Your task to perform on an android device: Go to calendar. Show me events next week Image 0: 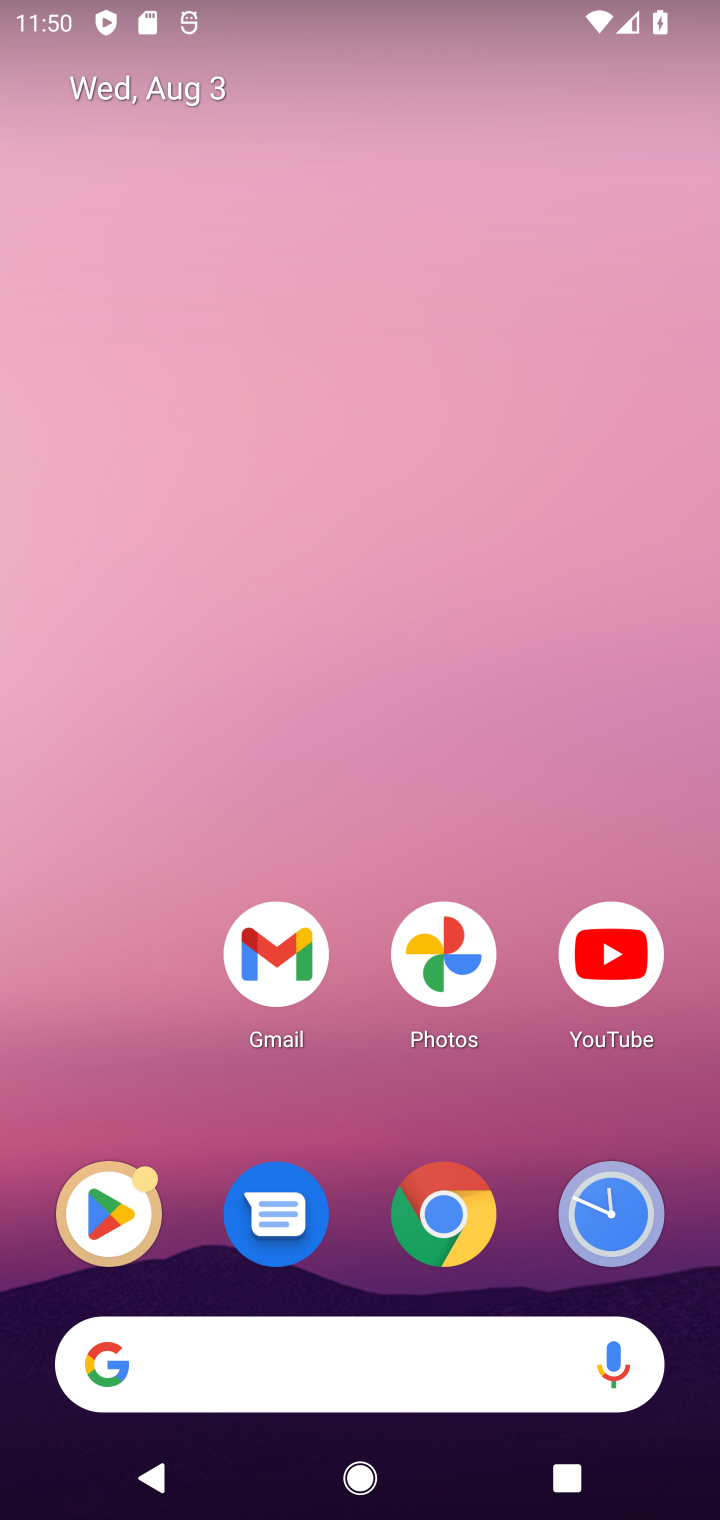
Step 0: drag from (330, 1445) to (463, 286)
Your task to perform on an android device: Go to calendar. Show me events next week Image 1: 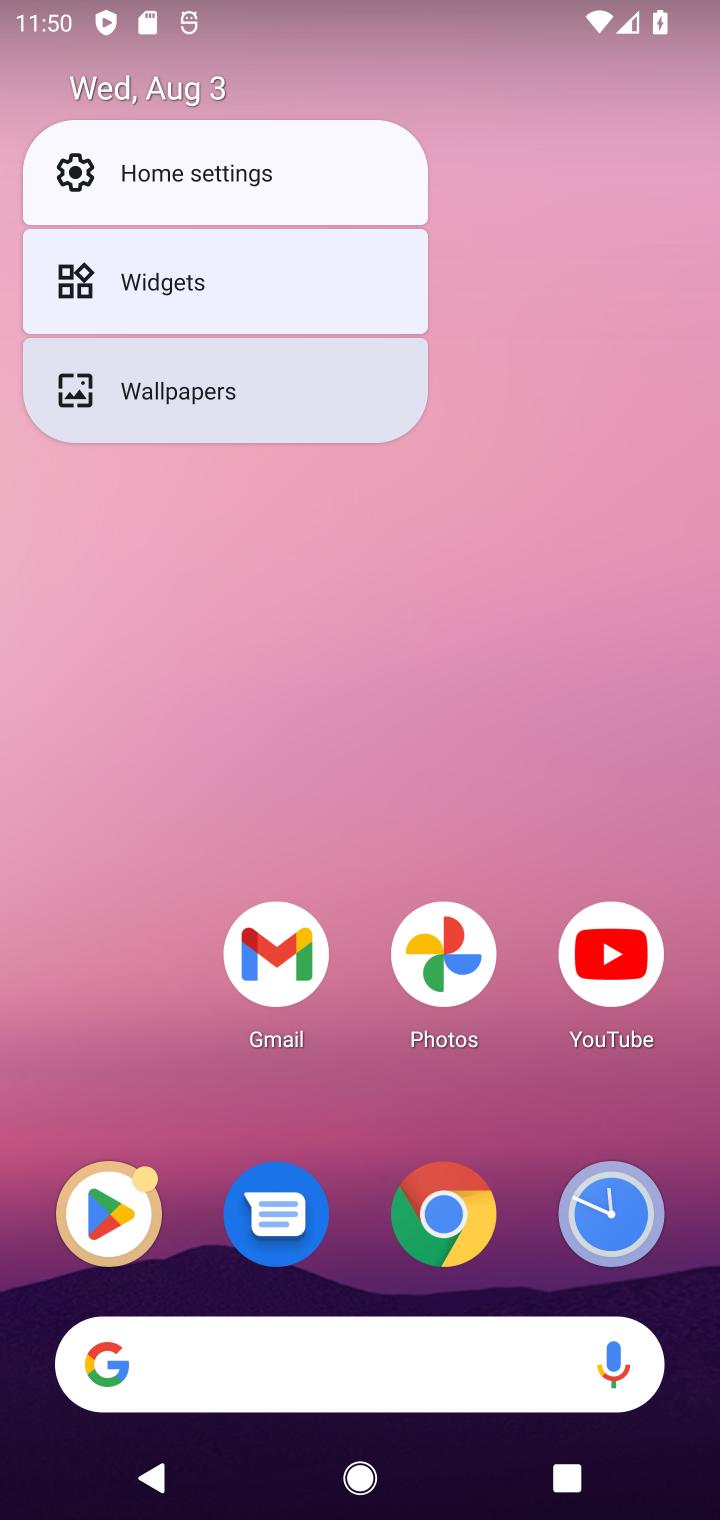
Step 1: drag from (406, 1104) to (485, 21)
Your task to perform on an android device: Go to calendar. Show me events next week Image 2: 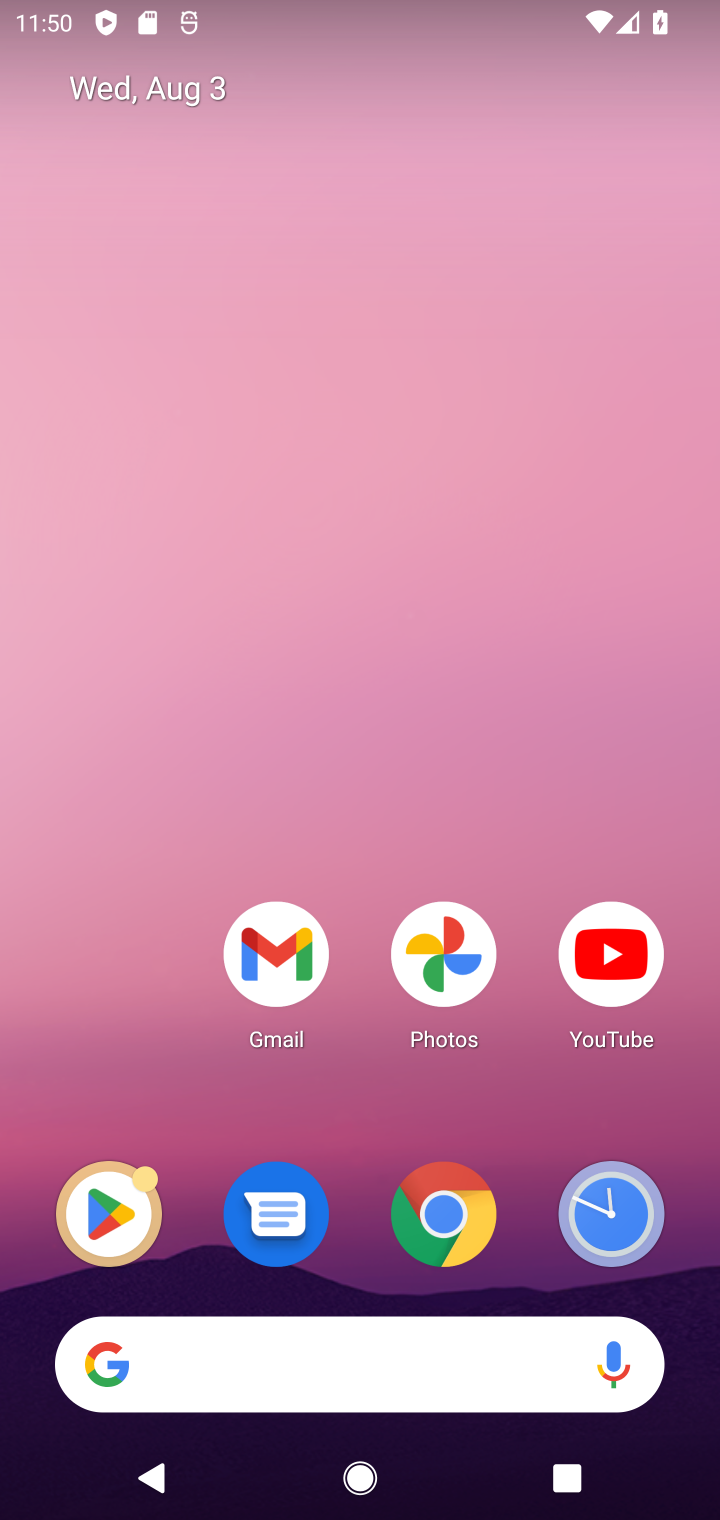
Step 2: drag from (505, 185) to (521, 11)
Your task to perform on an android device: Go to calendar. Show me events next week Image 3: 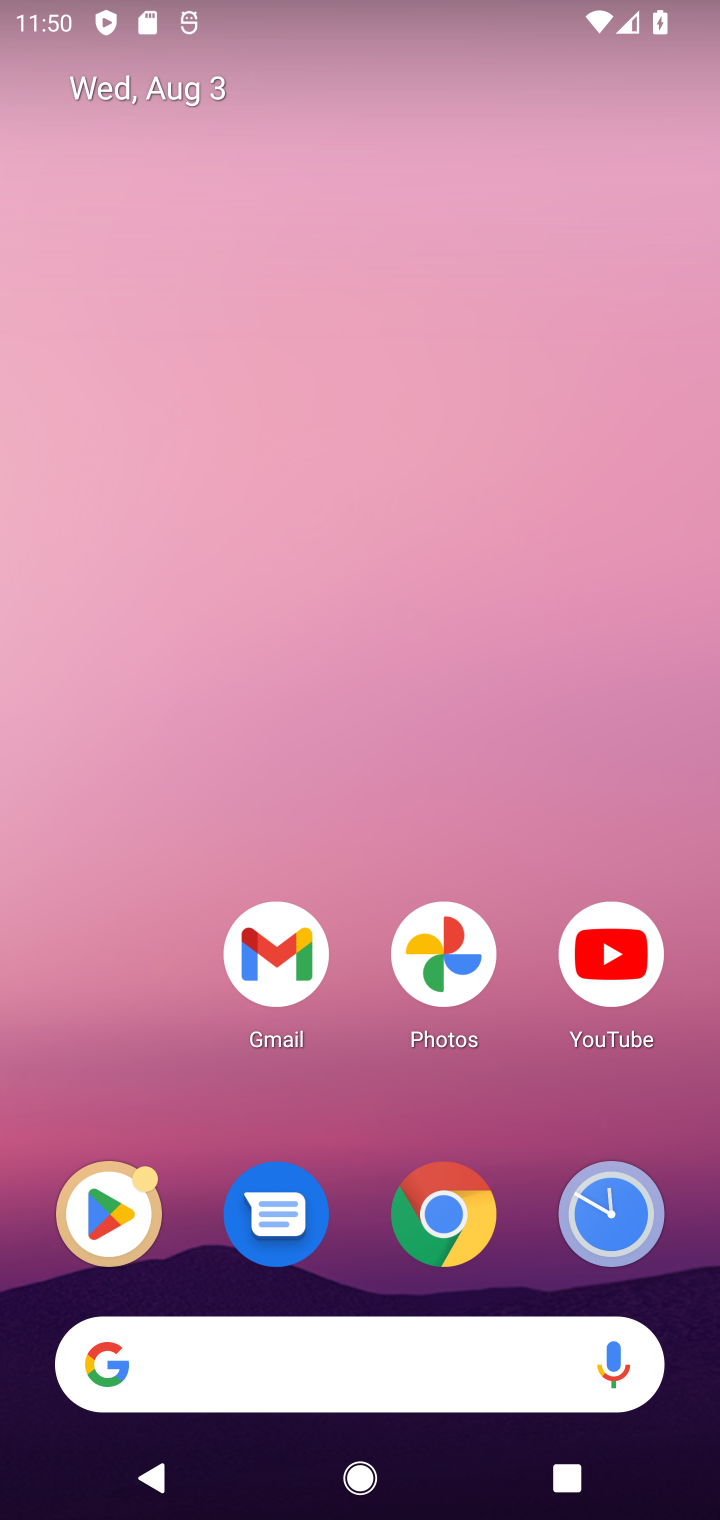
Step 3: drag from (431, 1451) to (420, 62)
Your task to perform on an android device: Go to calendar. Show me events next week Image 4: 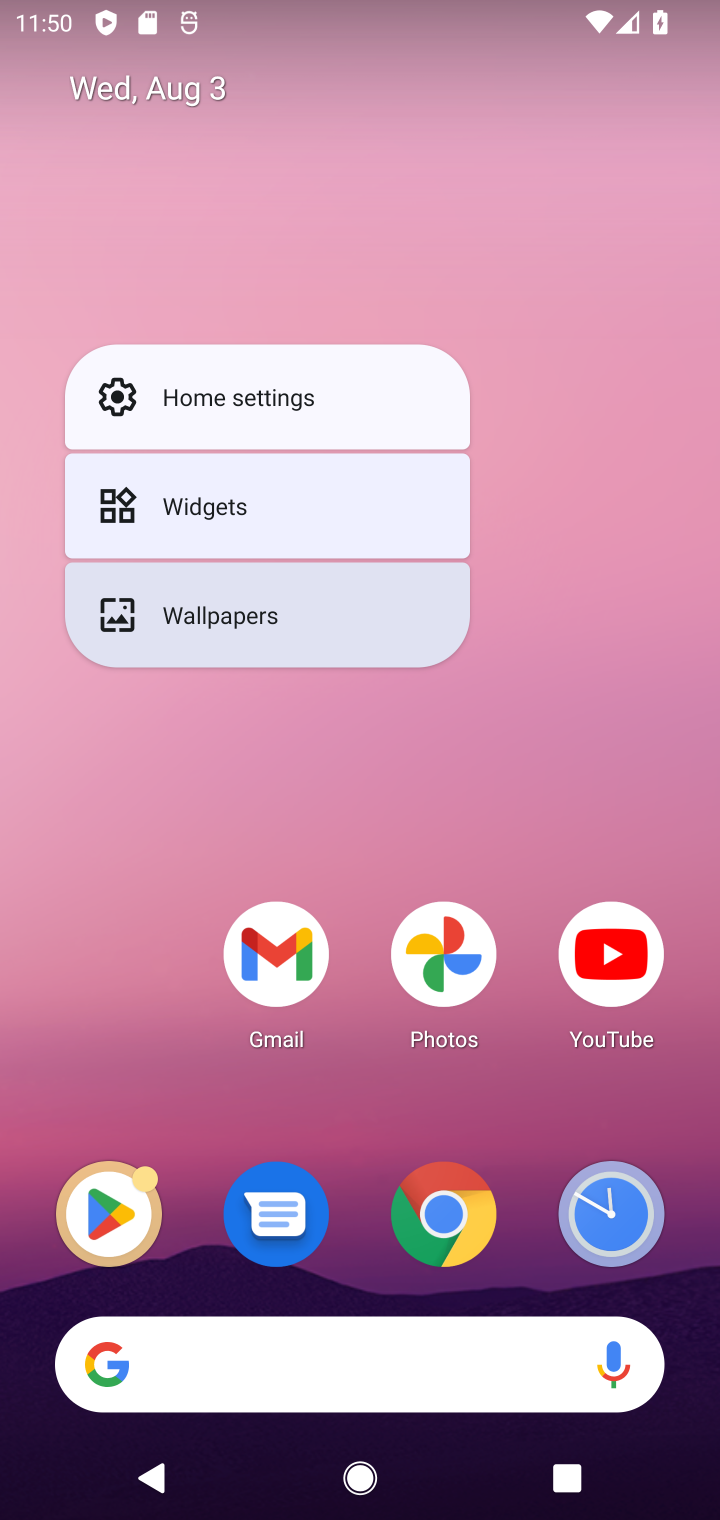
Step 4: drag from (480, 1338) to (631, 454)
Your task to perform on an android device: Go to calendar. Show me events next week Image 5: 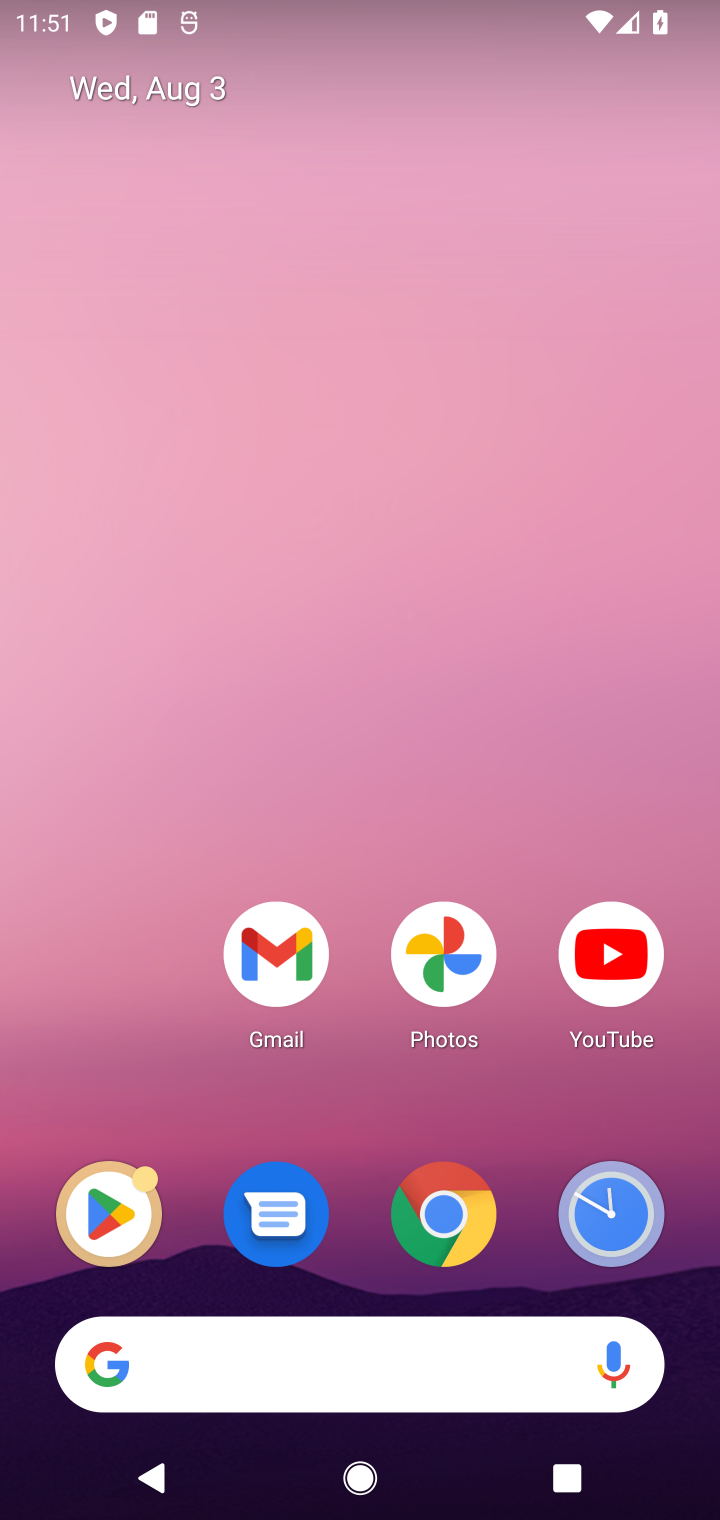
Step 5: drag from (290, 568) to (86, 1191)
Your task to perform on an android device: Go to calendar. Show me events next week Image 6: 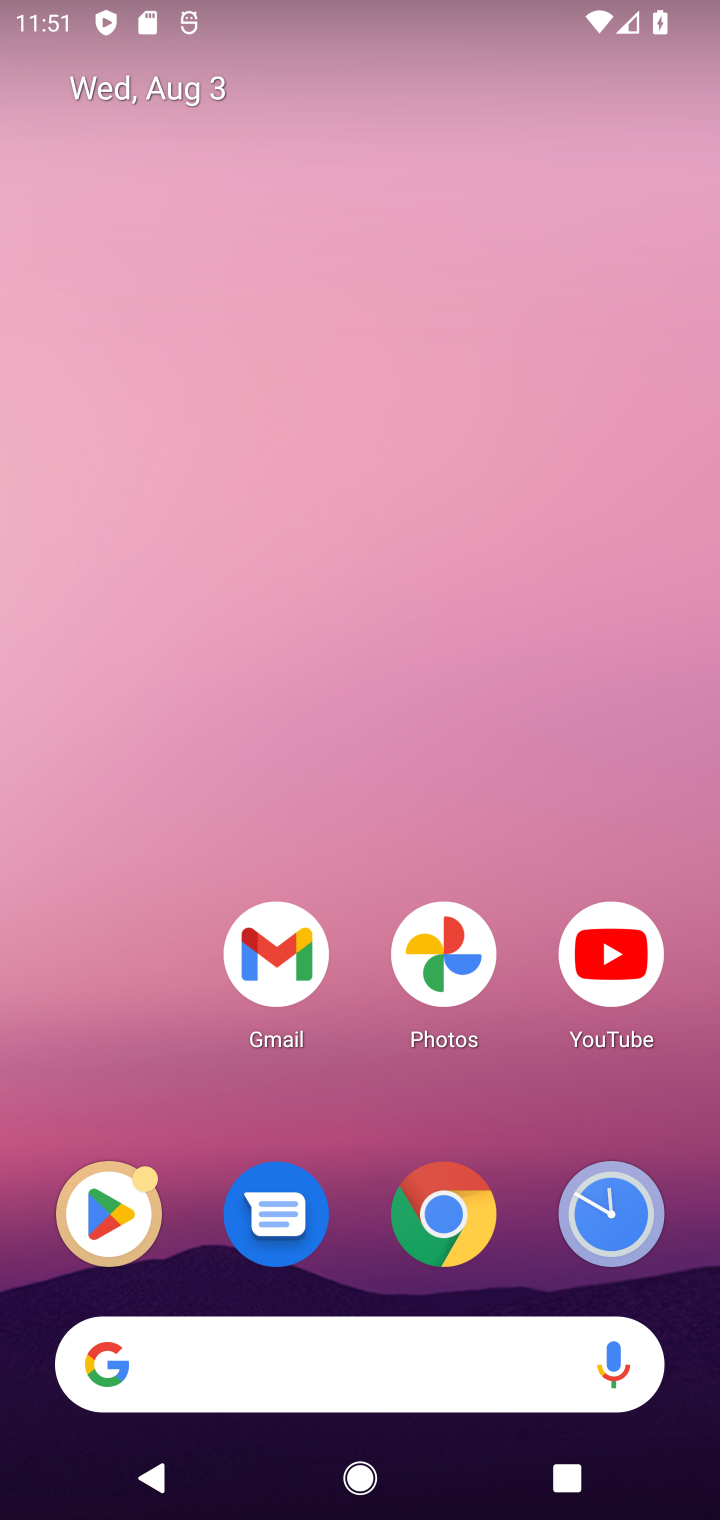
Step 6: drag from (476, 1407) to (416, 72)
Your task to perform on an android device: Go to calendar. Show me events next week Image 7: 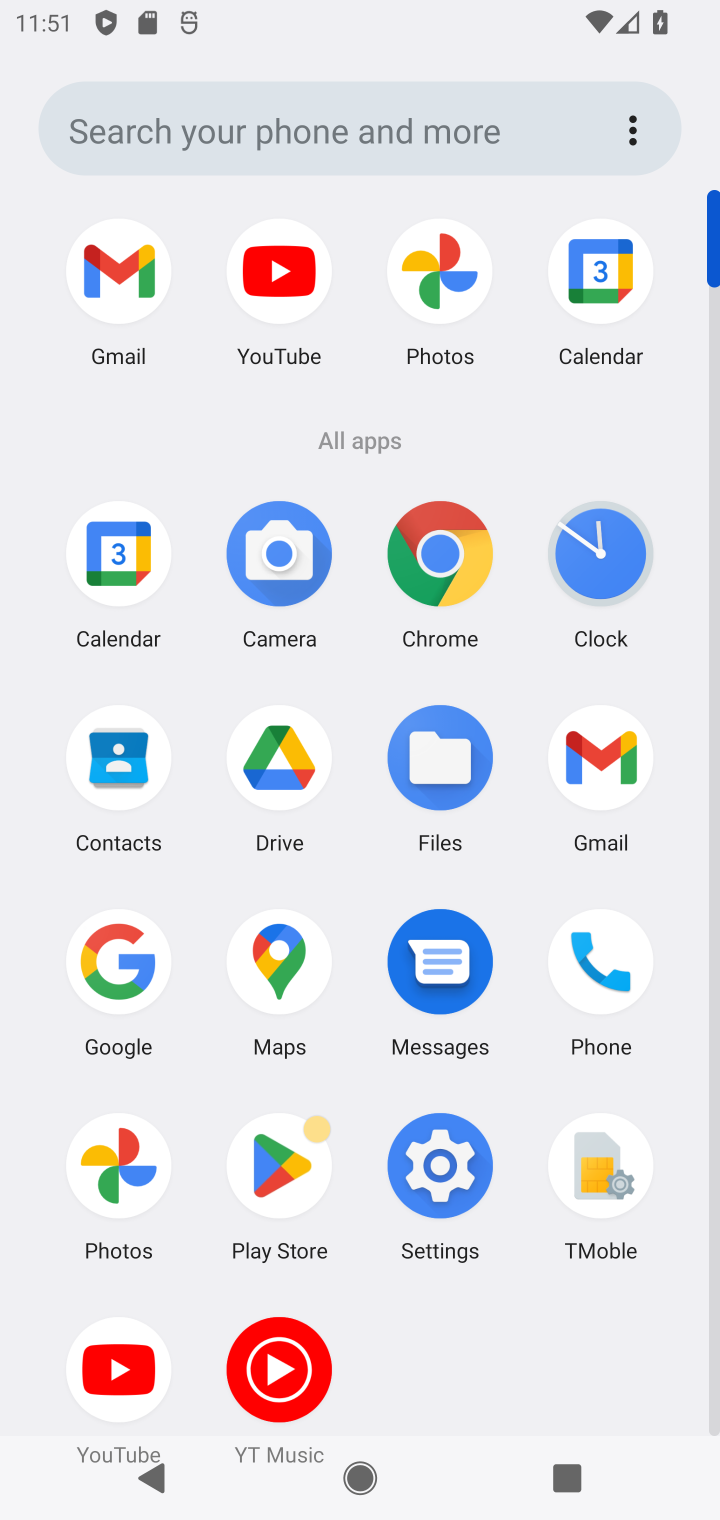
Step 7: click (129, 568)
Your task to perform on an android device: Go to calendar. Show me events next week Image 8: 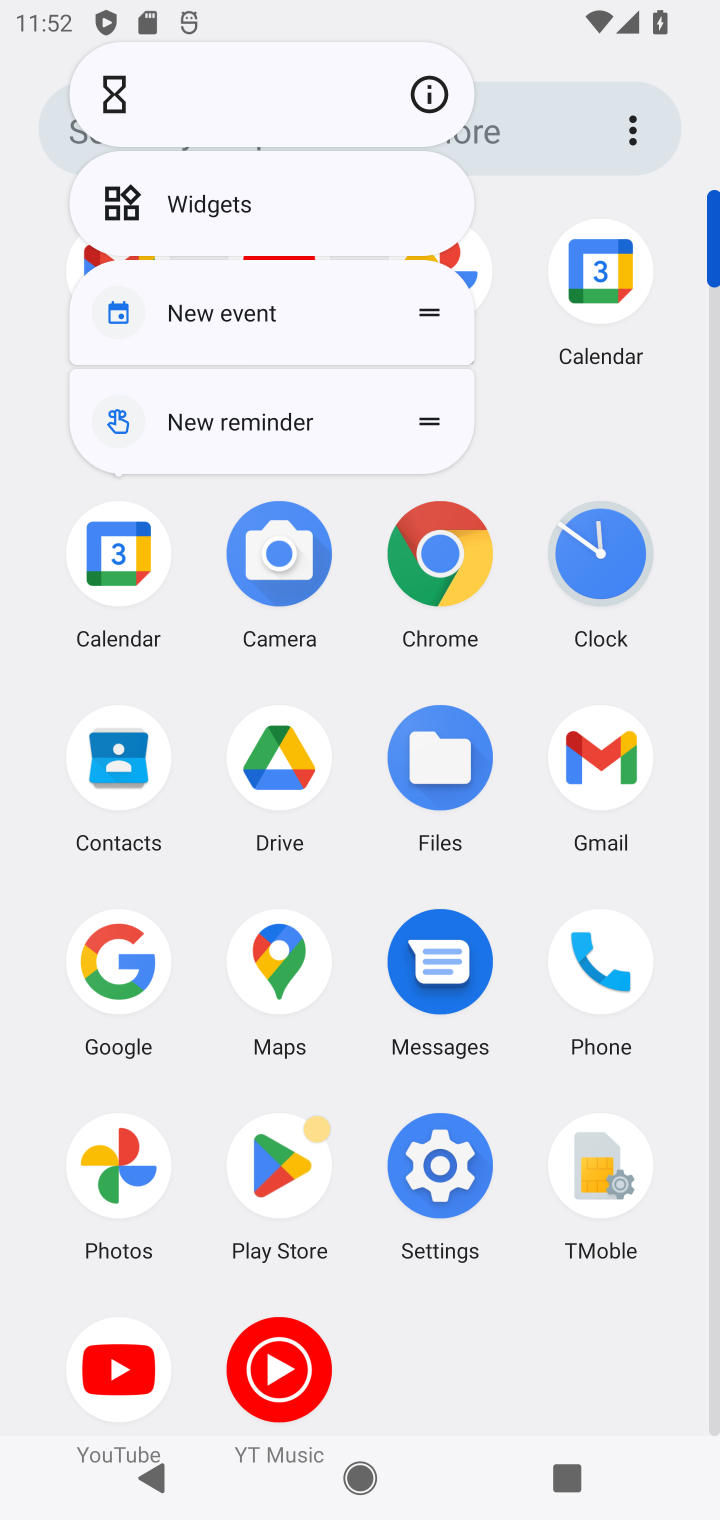
Step 8: click (97, 612)
Your task to perform on an android device: Go to calendar. Show me events next week Image 9: 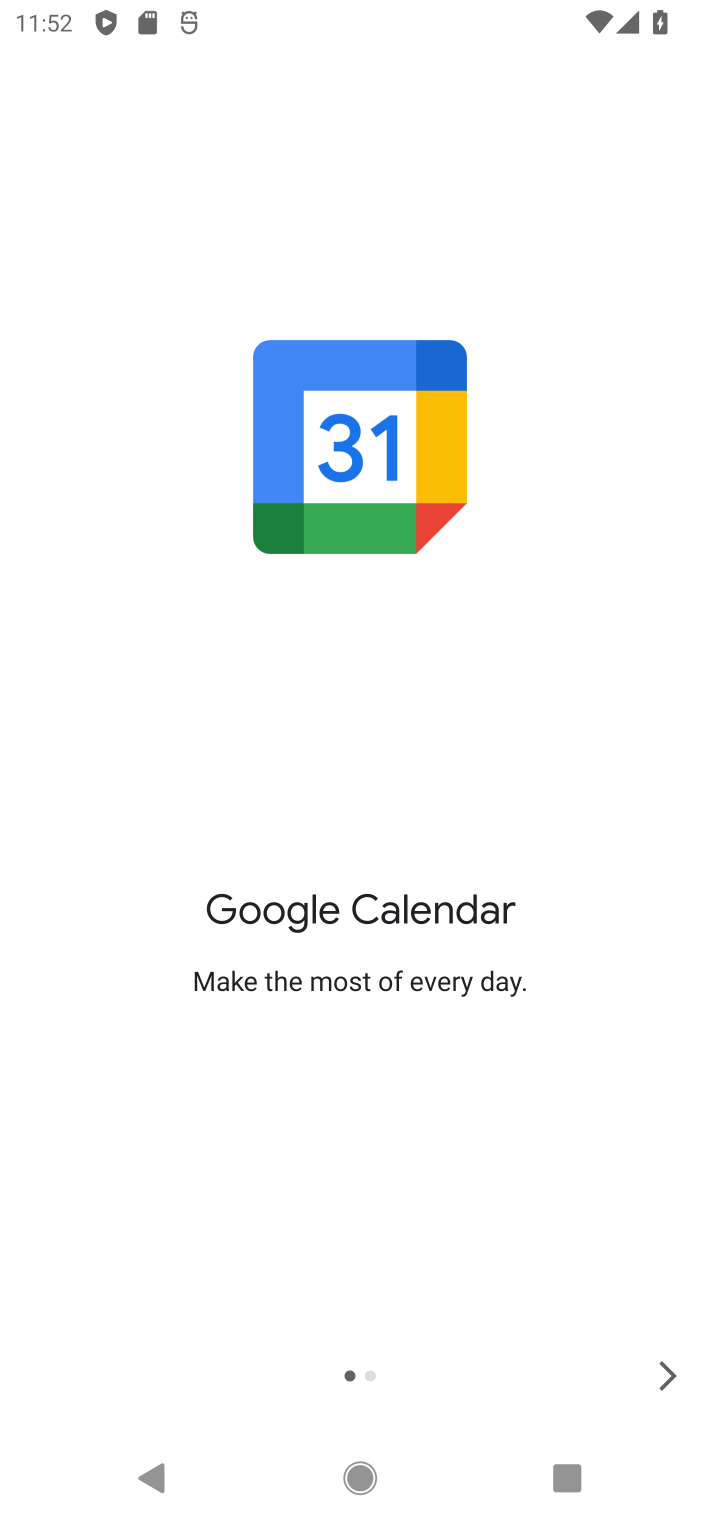
Step 9: click (662, 1371)
Your task to perform on an android device: Go to calendar. Show me events next week Image 10: 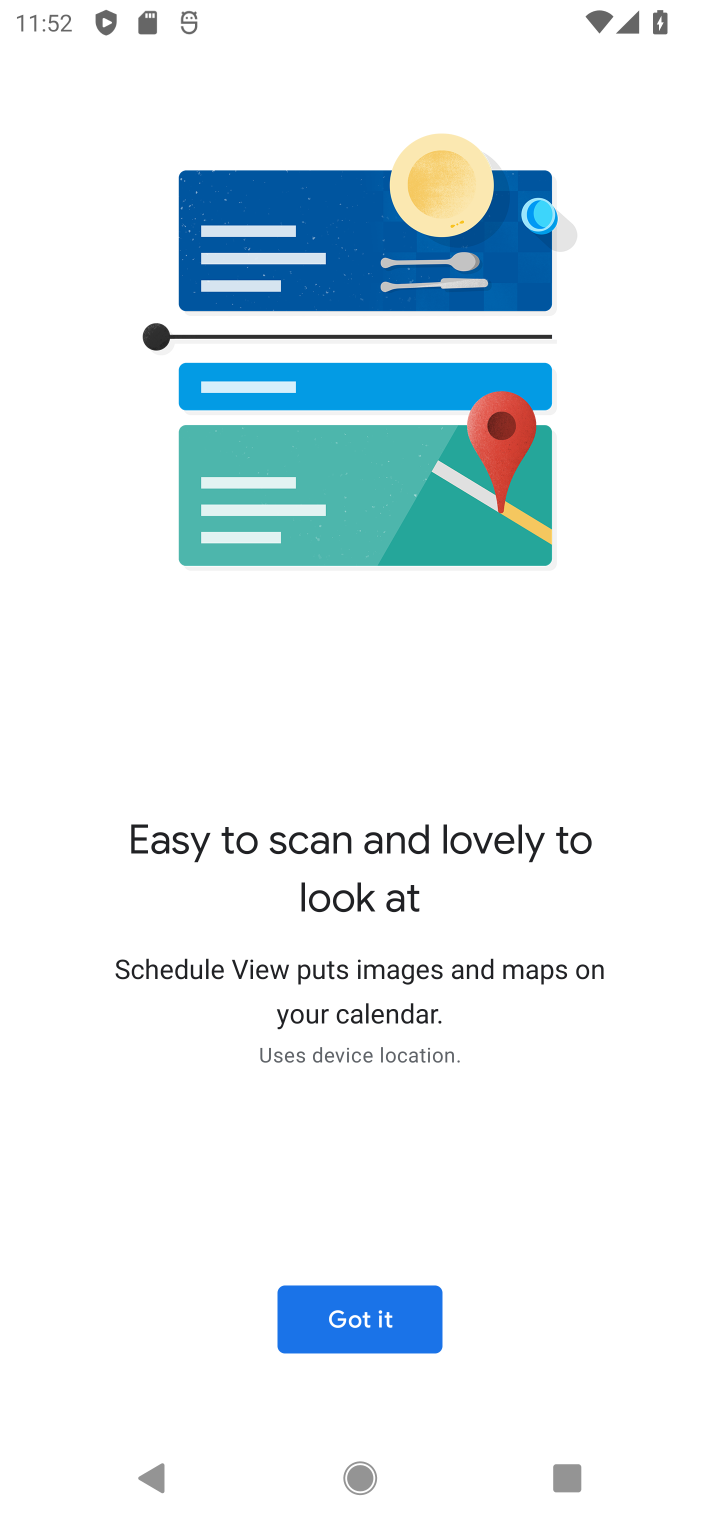
Step 10: click (349, 1317)
Your task to perform on an android device: Go to calendar. Show me events next week Image 11: 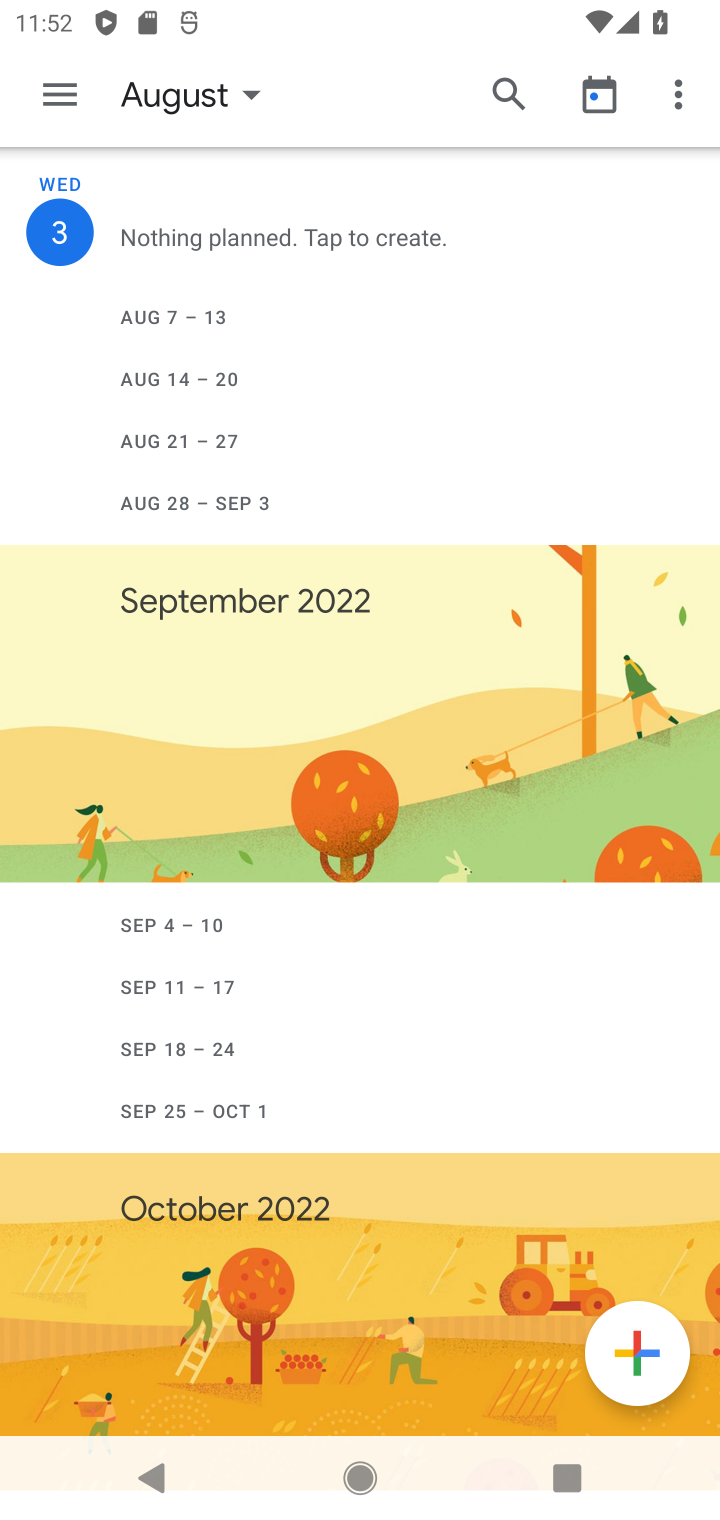
Step 11: task complete